Your task to perform on an android device: move a message to another label in the gmail app Image 0: 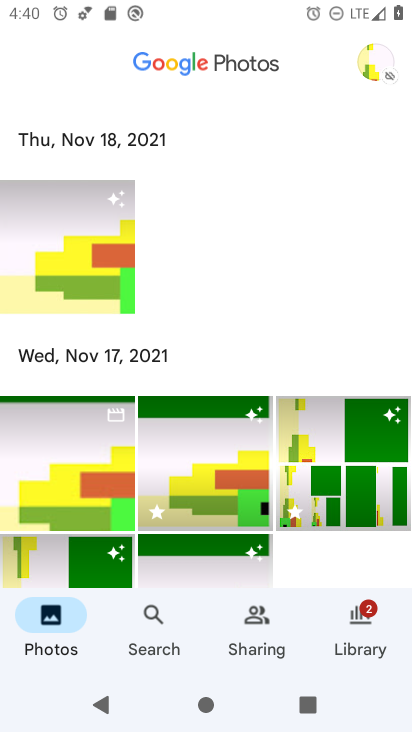
Step 0: press home button
Your task to perform on an android device: move a message to another label in the gmail app Image 1: 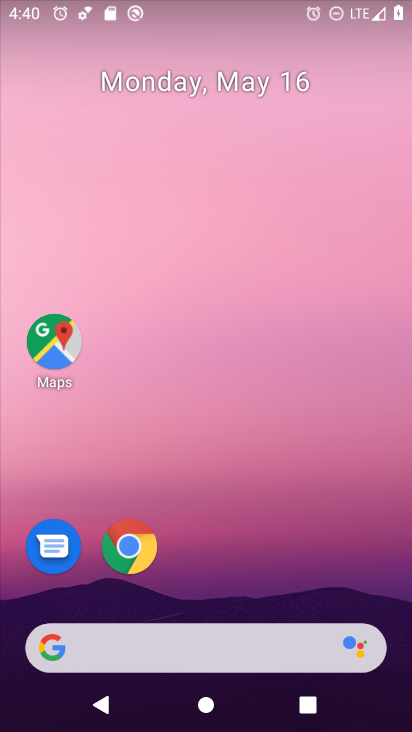
Step 1: drag from (351, 579) to (348, 150)
Your task to perform on an android device: move a message to another label in the gmail app Image 2: 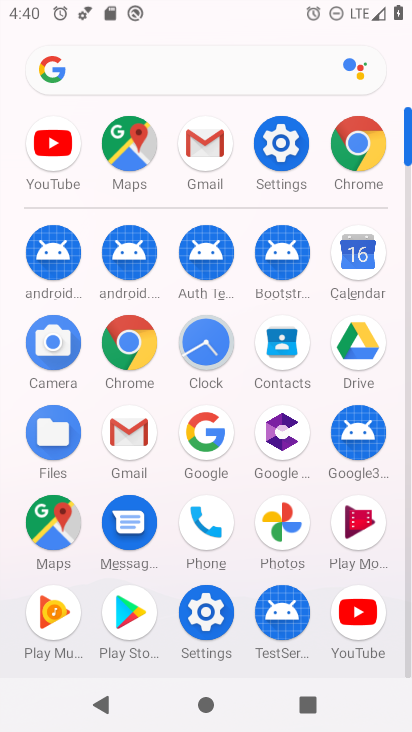
Step 2: click (124, 442)
Your task to perform on an android device: move a message to another label in the gmail app Image 3: 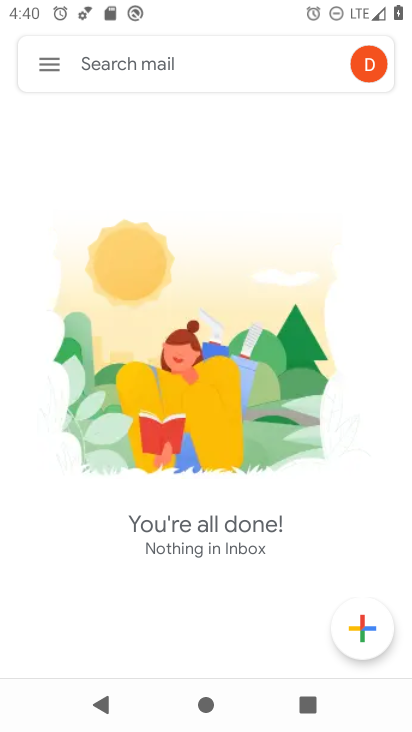
Step 3: click (57, 75)
Your task to perform on an android device: move a message to another label in the gmail app Image 4: 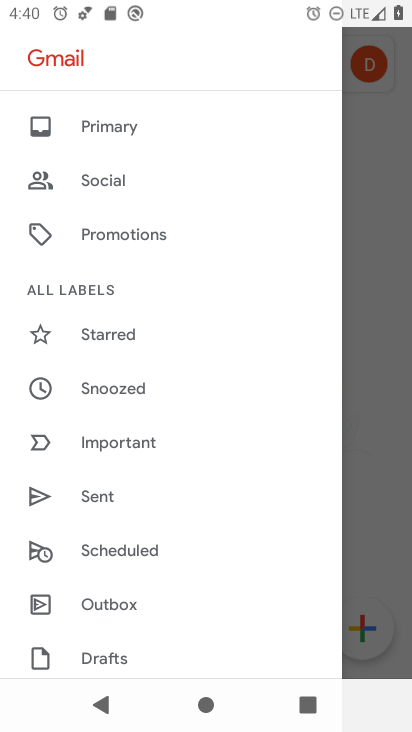
Step 4: drag from (251, 571) to (265, 373)
Your task to perform on an android device: move a message to another label in the gmail app Image 5: 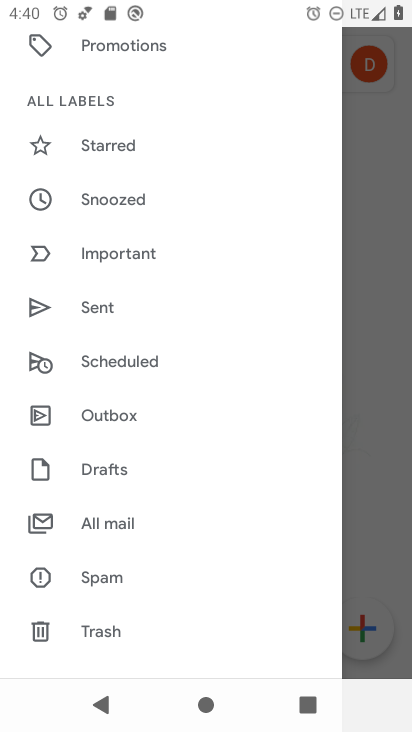
Step 5: drag from (237, 607) to (244, 332)
Your task to perform on an android device: move a message to another label in the gmail app Image 6: 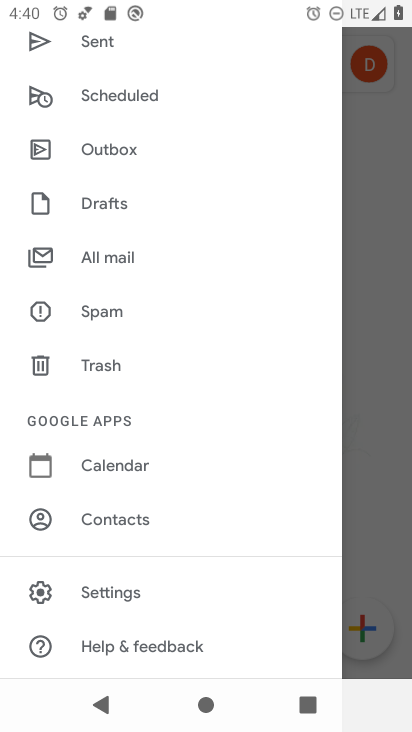
Step 6: drag from (236, 632) to (228, 332)
Your task to perform on an android device: move a message to another label in the gmail app Image 7: 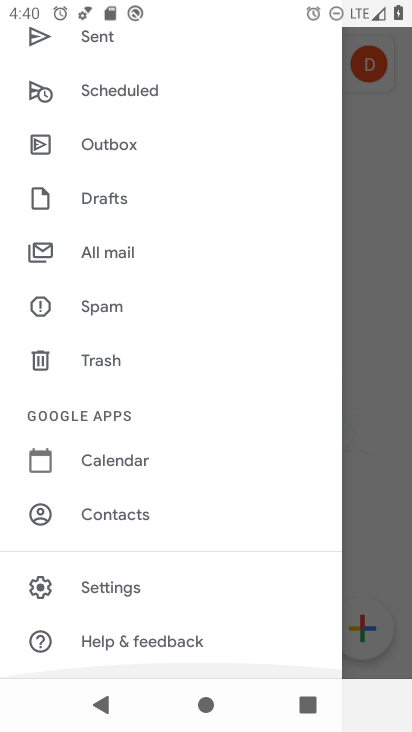
Step 7: drag from (226, 295) to (220, 526)
Your task to perform on an android device: move a message to another label in the gmail app Image 8: 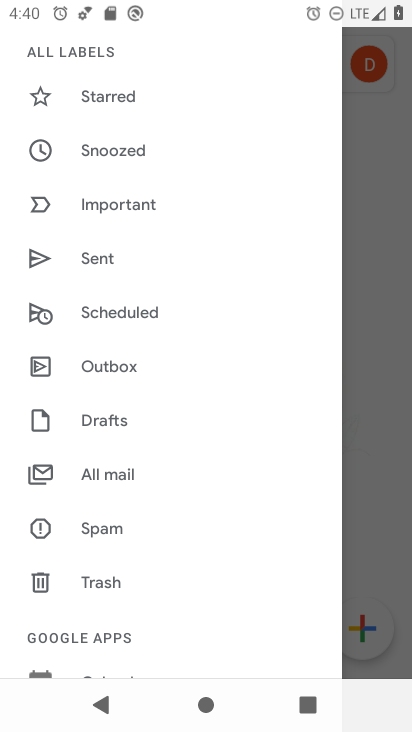
Step 8: drag from (227, 313) to (231, 495)
Your task to perform on an android device: move a message to another label in the gmail app Image 9: 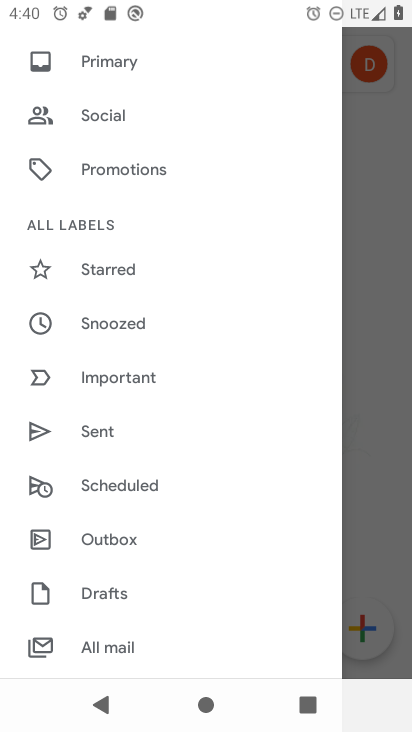
Step 9: drag from (235, 251) to (241, 456)
Your task to perform on an android device: move a message to another label in the gmail app Image 10: 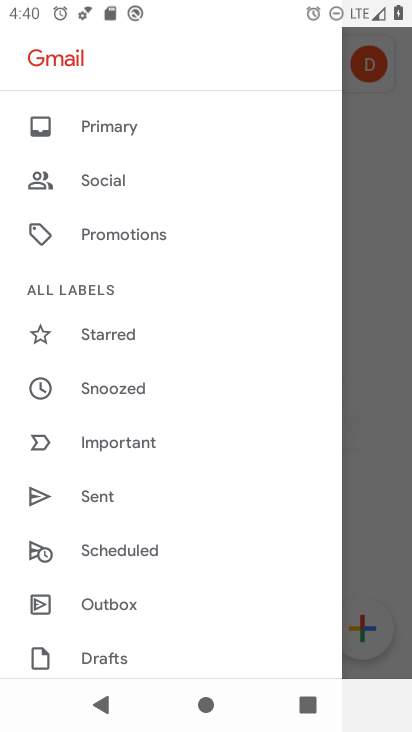
Step 10: click (112, 133)
Your task to perform on an android device: move a message to another label in the gmail app Image 11: 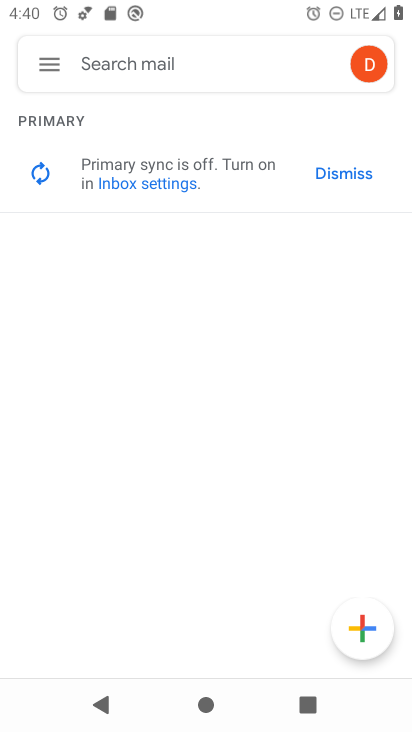
Step 11: task complete